Your task to perform on an android device: Open the phone app and click the voicemail tab. Image 0: 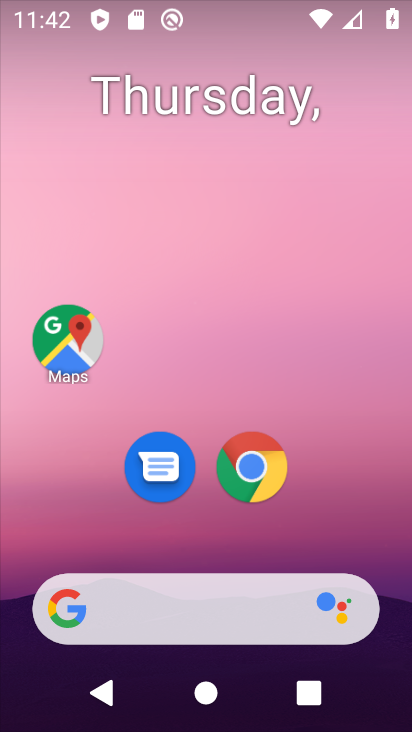
Step 0: drag from (357, 554) to (384, 8)
Your task to perform on an android device: Open the phone app and click the voicemail tab. Image 1: 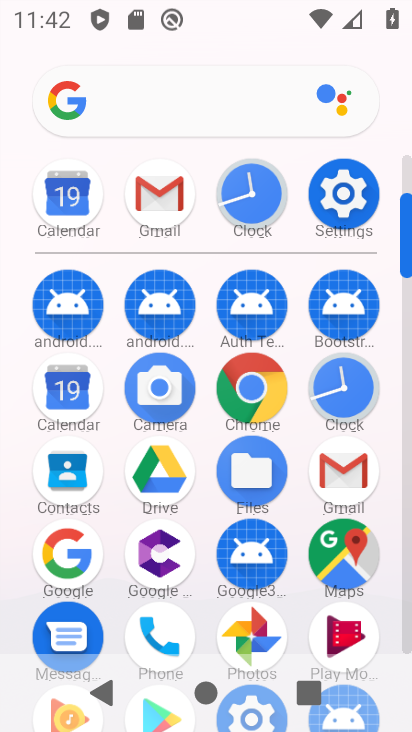
Step 1: click (158, 634)
Your task to perform on an android device: Open the phone app and click the voicemail tab. Image 2: 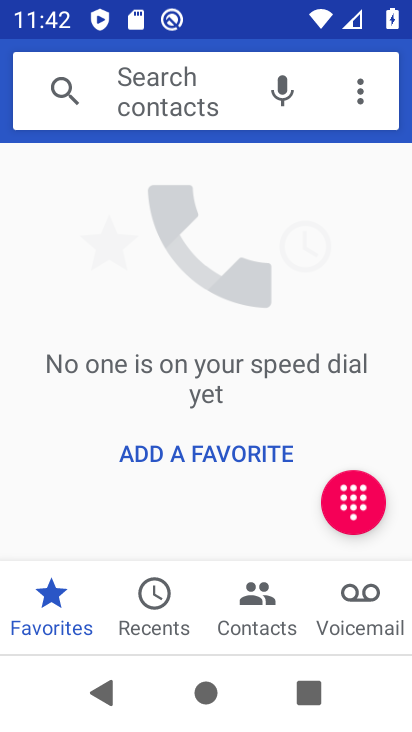
Step 2: click (366, 614)
Your task to perform on an android device: Open the phone app and click the voicemail tab. Image 3: 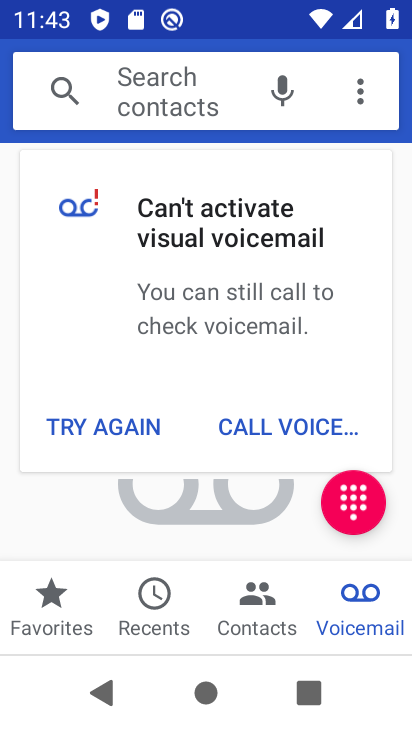
Step 3: task complete